Your task to perform on an android device: turn off location history Image 0: 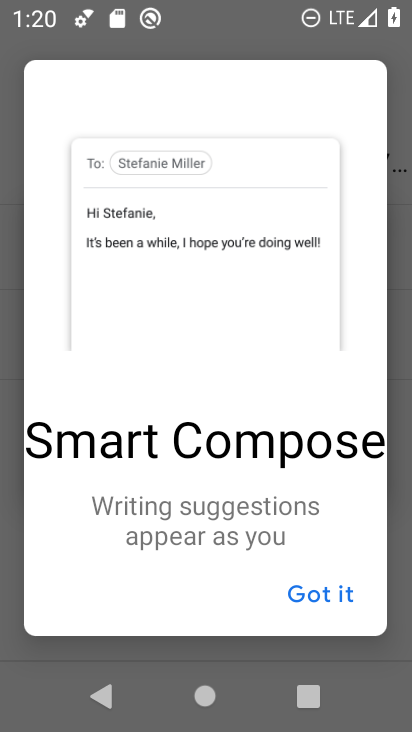
Step 0: press home button
Your task to perform on an android device: turn off location history Image 1: 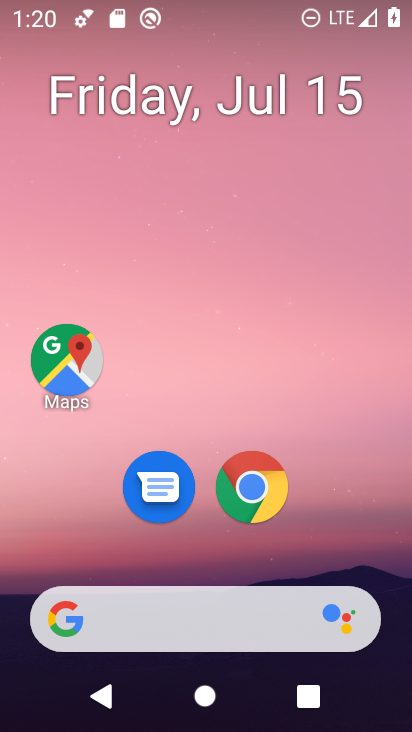
Step 1: drag from (268, 599) to (333, 83)
Your task to perform on an android device: turn off location history Image 2: 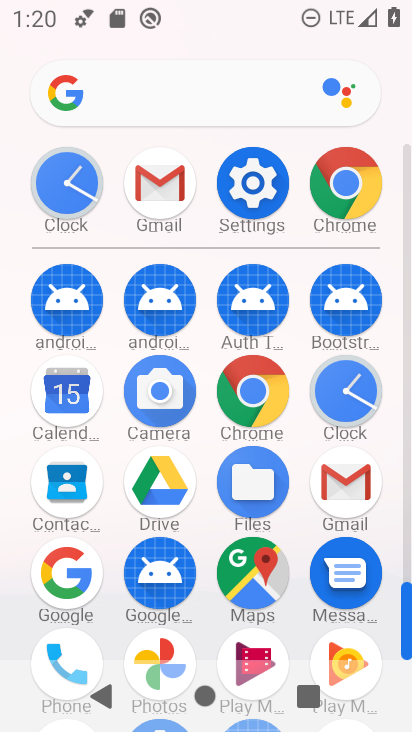
Step 2: click (254, 204)
Your task to perform on an android device: turn off location history Image 3: 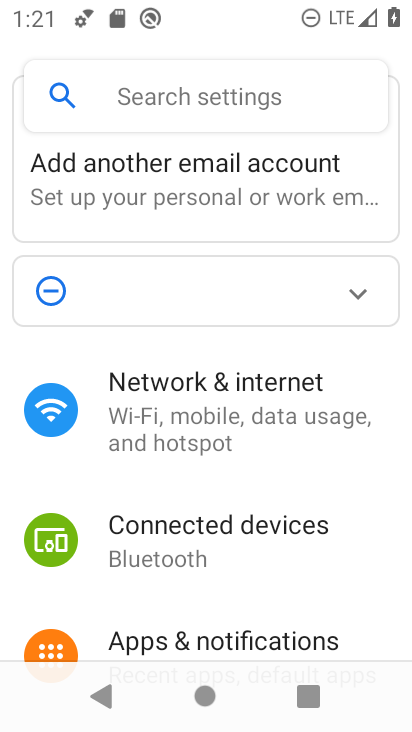
Step 3: drag from (208, 517) to (239, 252)
Your task to perform on an android device: turn off location history Image 4: 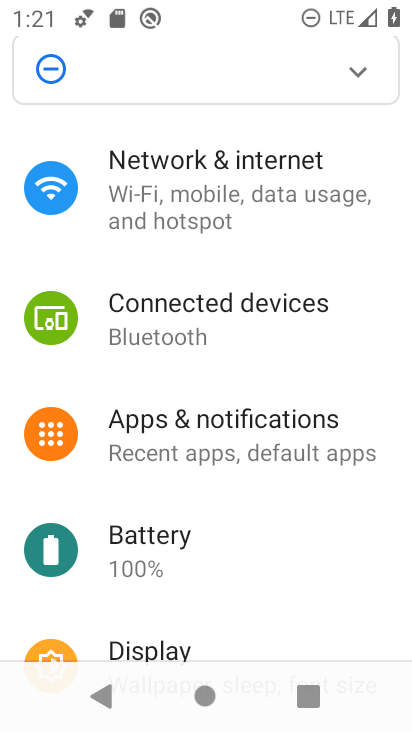
Step 4: drag from (198, 547) to (224, 181)
Your task to perform on an android device: turn off location history Image 5: 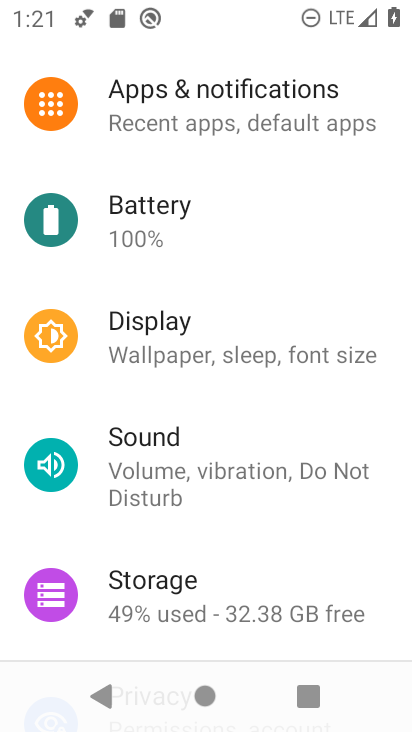
Step 5: drag from (167, 524) to (172, 79)
Your task to perform on an android device: turn off location history Image 6: 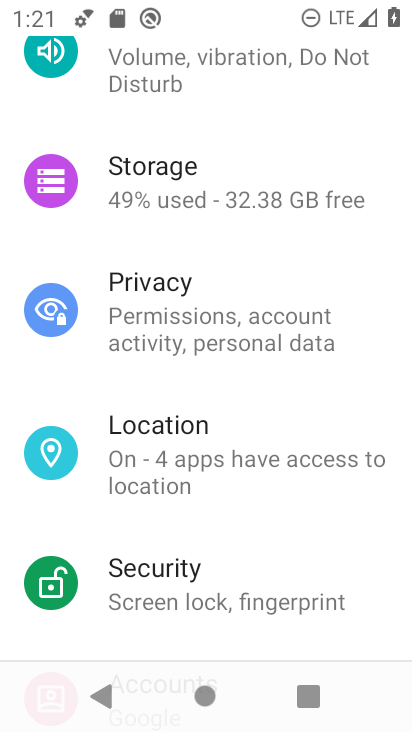
Step 6: click (169, 462)
Your task to perform on an android device: turn off location history Image 7: 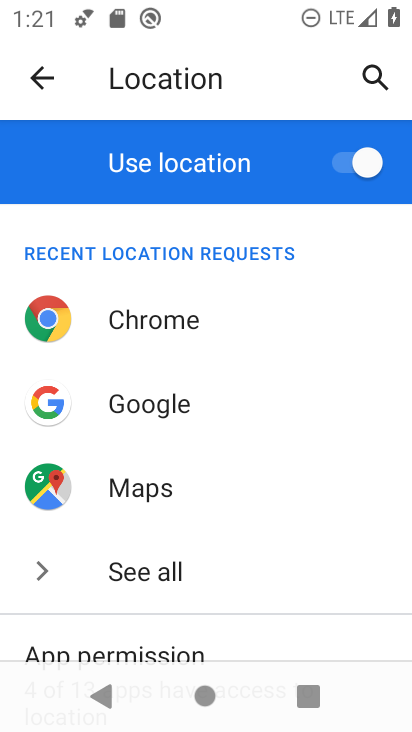
Step 7: drag from (196, 512) to (253, 22)
Your task to perform on an android device: turn off location history Image 8: 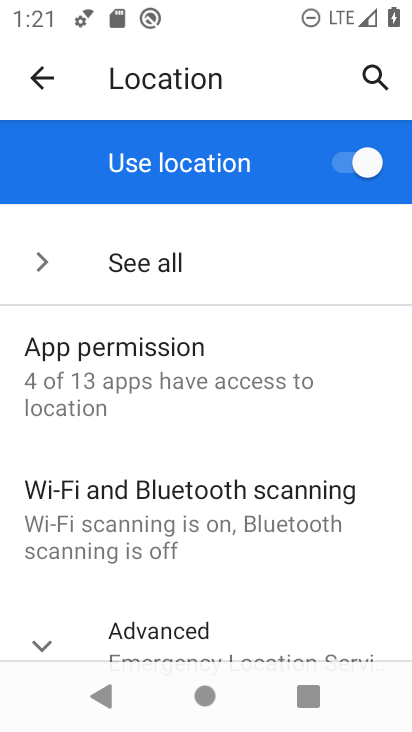
Step 8: drag from (180, 538) to (182, 386)
Your task to perform on an android device: turn off location history Image 9: 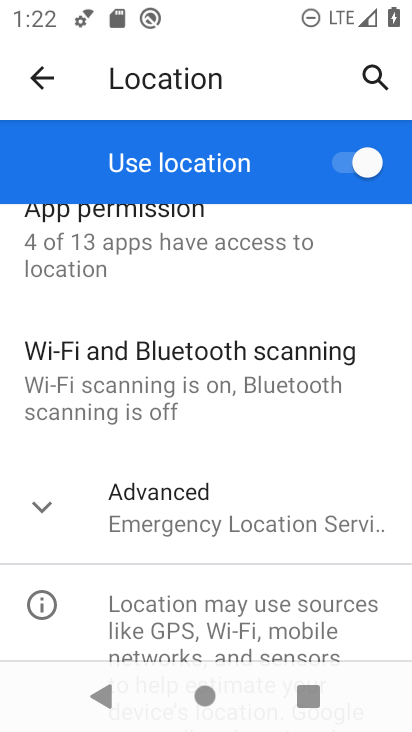
Step 9: click (172, 514)
Your task to perform on an android device: turn off location history Image 10: 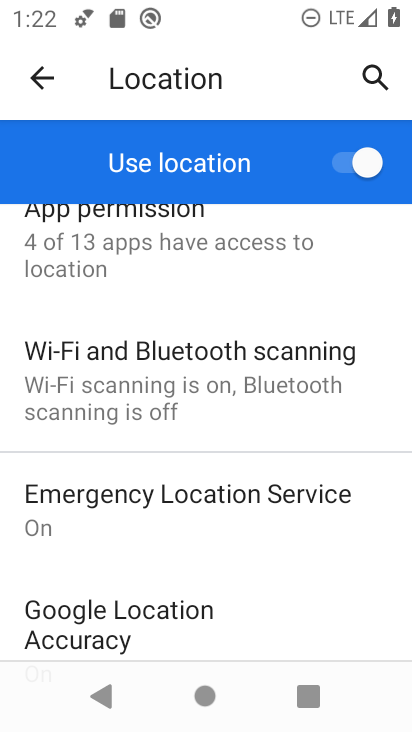
Step 10: drag from (211, 576) to (238, 229)
Your task to perform on an android device: turn off location history Image 11: 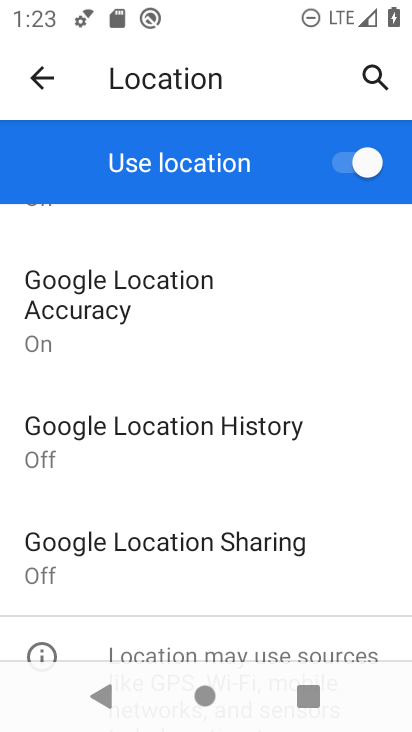
Step 11: click (193, 432)
Your task to perform on an android device: turn off location history Image 12: 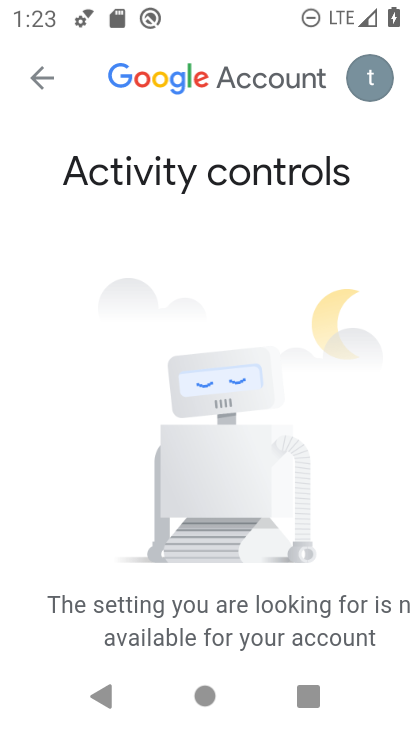
Step 12: task complete